Your task to perform on an android device: turn on location history Image 0: 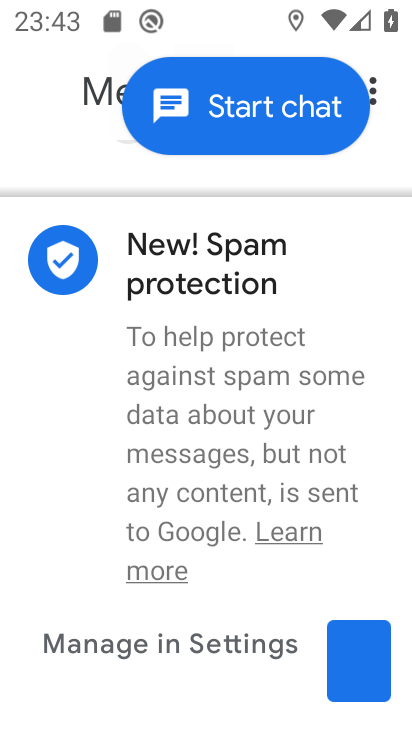
Step 0: press home button
Your task to perform on an android device: turn on location history Image 1: 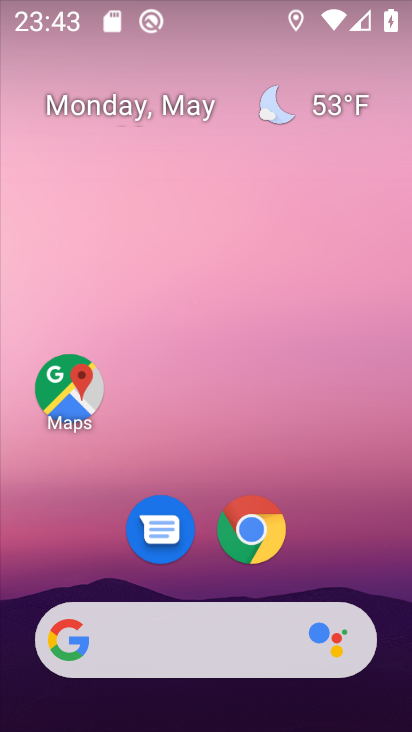
Step 1: drag from (347, 549) to (299, 220)
Your task to perform on an android device: turn on location history Image 2: 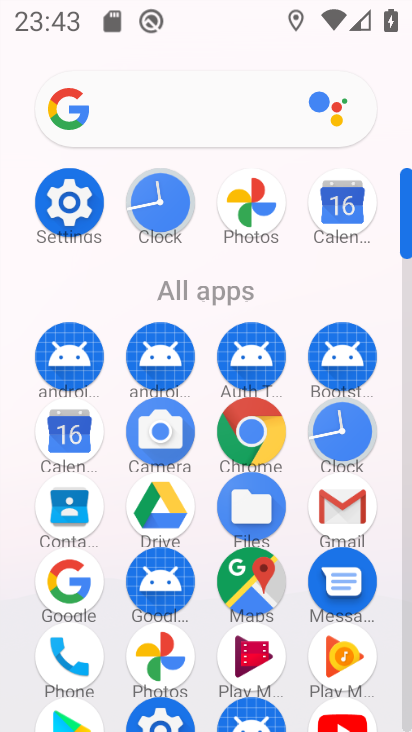
Step 2: click (79, 203)
Your task to perform on an android device: turn on location history Image 3: 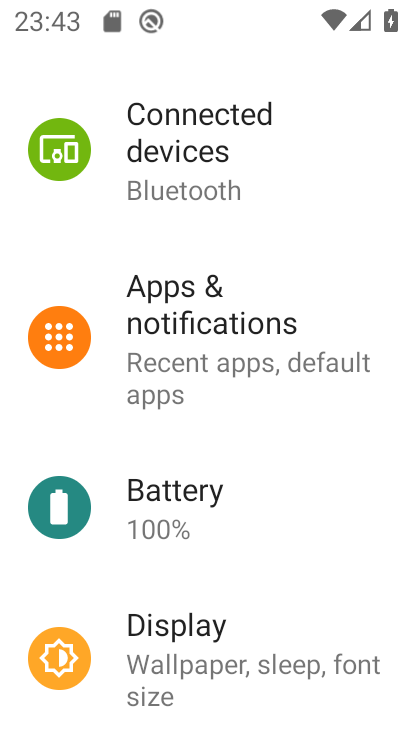
Step 3: drag from (262, 568) to (248, 247)
Your task to perform on an android device: turn on location history Image 4: 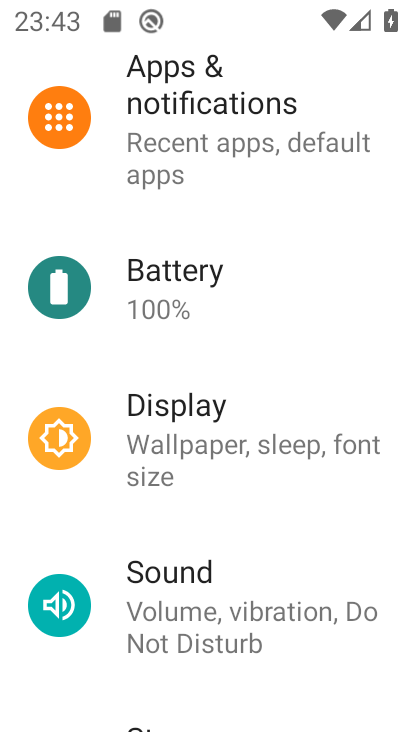
Step 4: drag from (260, 611) to (280, 256)
Your task to perform on an android device: turn on location history Image 5: 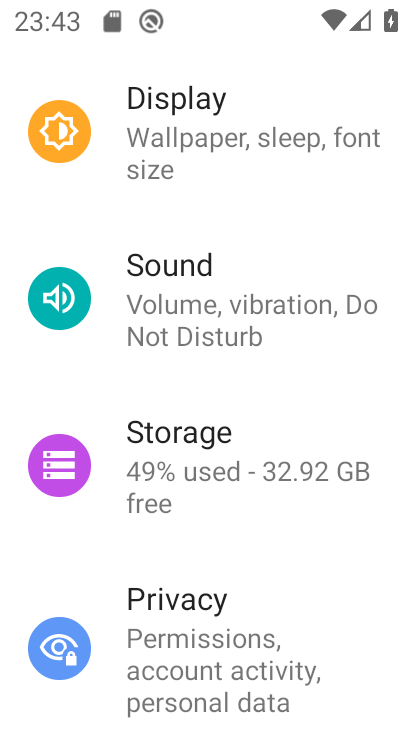
Step 5: drag from (271, 585) to (336, 197)
Your task to perform on an android device: turn on location history Image 6: 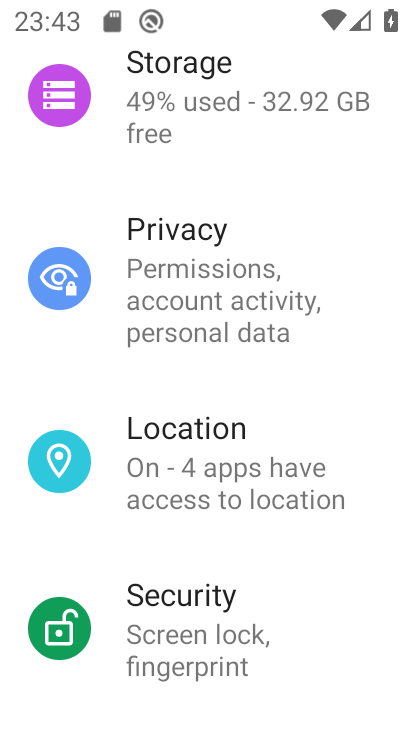
Step 6: click (232, 444)
Your task to perform on an android device: turn on location history Image 7: 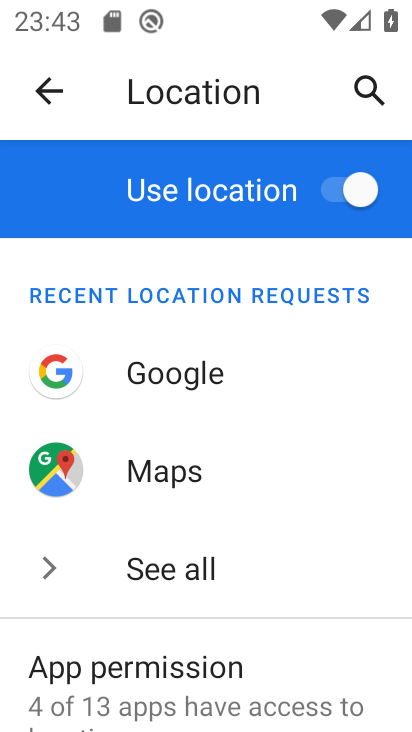
Step 7: drag from (255, 619) to (287, 296)
Your task to perform on an android device: turn on location history Image 8: 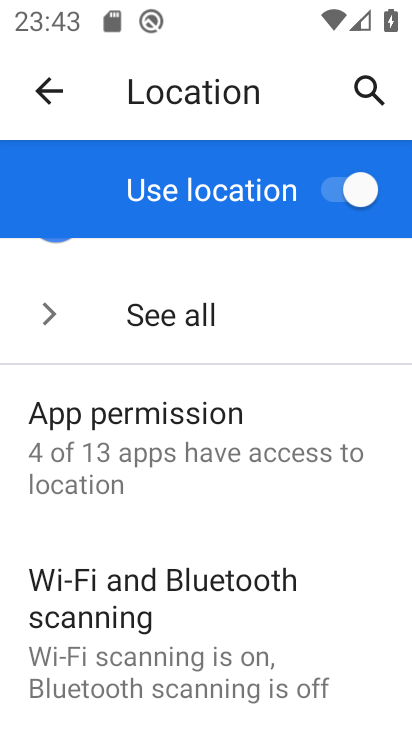
Step 8: drag from (231, 616) to (252, 336)
Your task to perform on an android device: turn on location history Image 9: 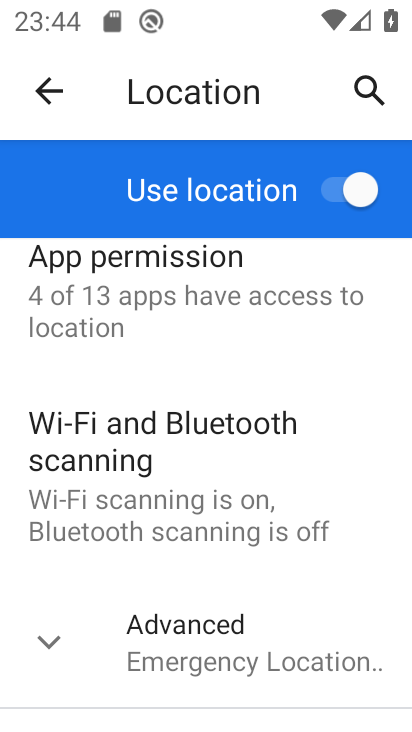
Step 9: click (210, 667)
Your task to perform on an android device: turn on location history Image 10: 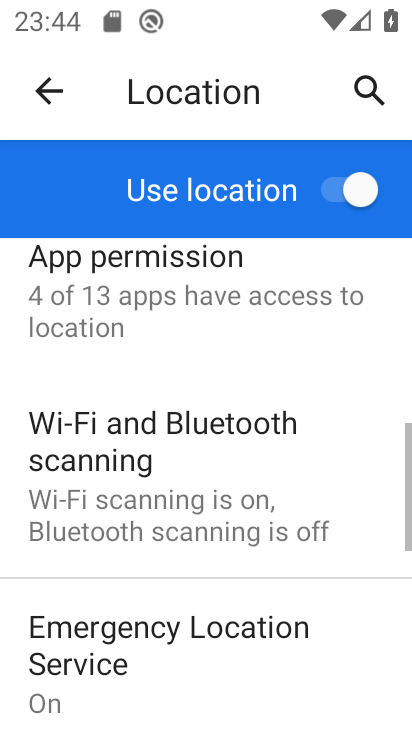
Step 10: drag from (210, 667) to (244, 380)
Your task to perform on an android device: turn on location history Image 11: 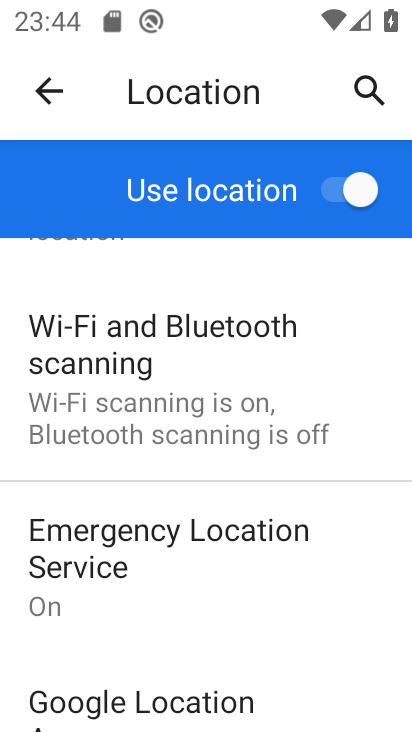
Step 11: drag from (267, 658) to (244, 310)
Your task to perform on an android device: turn on location history Image 12: 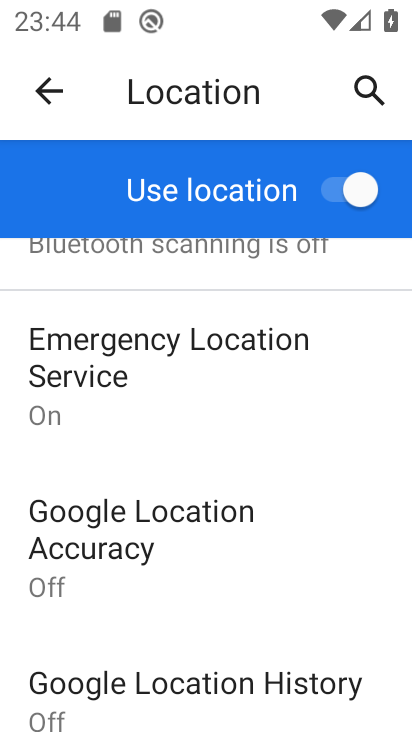
Step 12: click (226, 687)
Your task to perform on an android device: turn on location history Image 13: 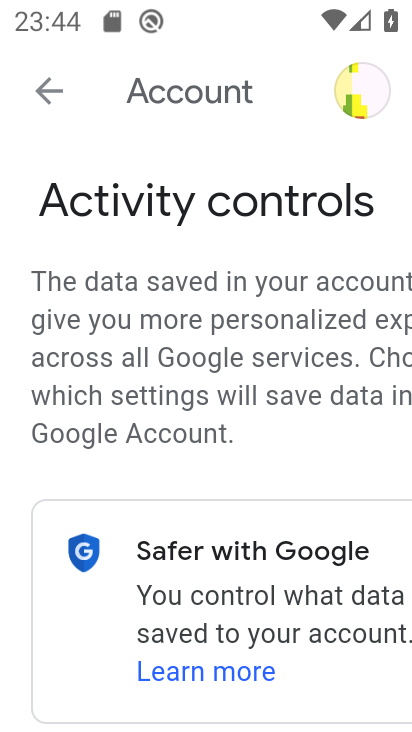
Step 13: task complete